Your task to perform on an android device: Open calendar and show me the second week of next month Image 0: 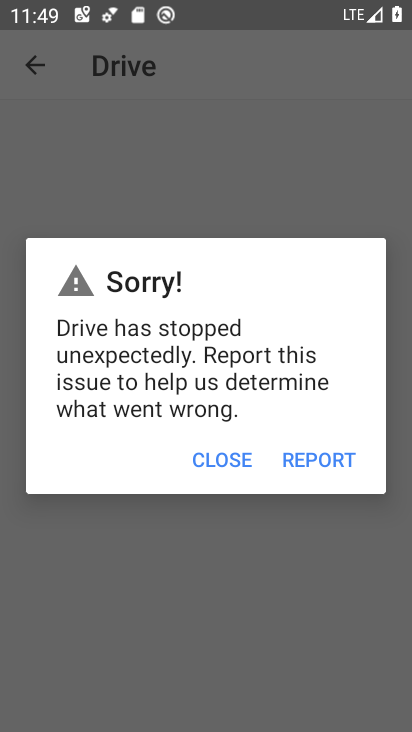
Step 0: press home button
Your task to perform on an android device: Open calendar and show me the second week of next month Image 1: 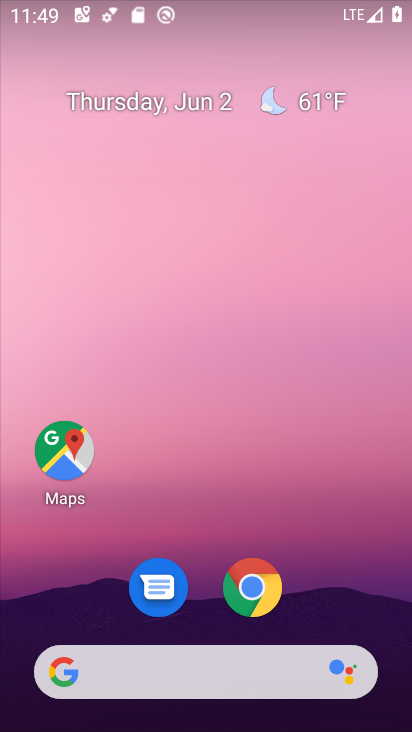
Step 1: drag from (204, 504) to (188, 7)
Your task to perform on an android device: Open calendar and show me the second week of next month Image 2: 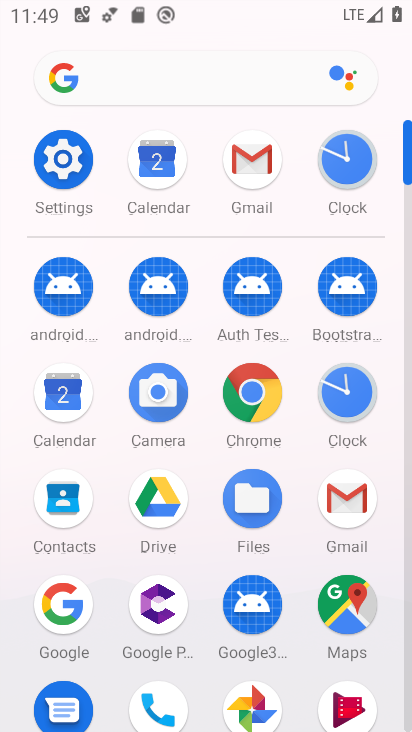
Step 2: click (149, 147)
Your task to perform on an android device: Open calendar and show me the second week of next month Image 3: 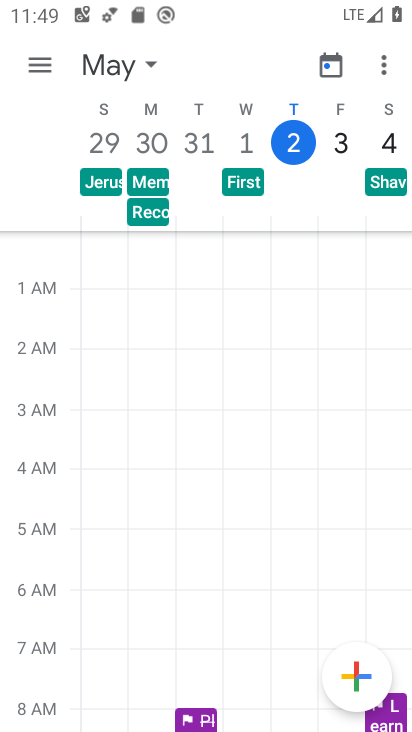
Step 3: click (363, 412)
Your task to perform on an android device: Open calendar and show me the second week of next month Image 4: 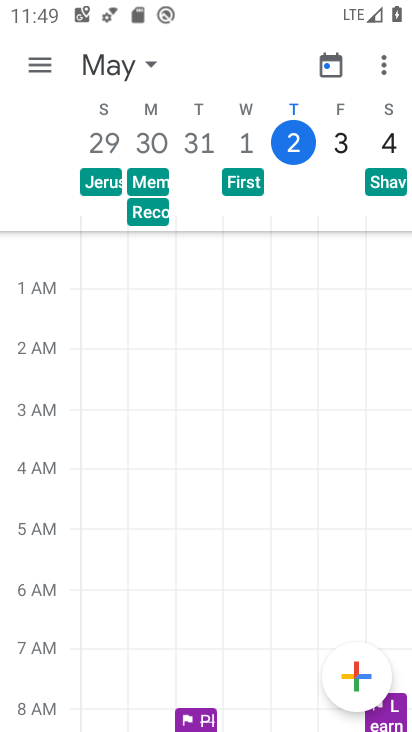
Step 4: click (36, 61)
Your task to perform on an android device: Open calendar and show me the second week of next month Image 5: 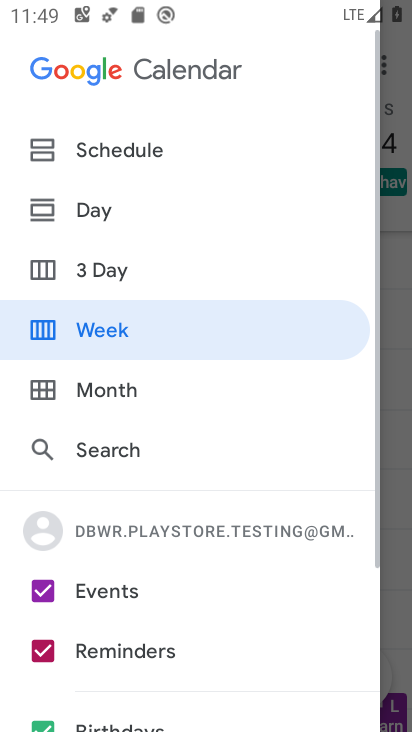
Step 5: click (205, 584)
Your task to perform on an android device: Open calendar and show me the second week of next month Image 6: 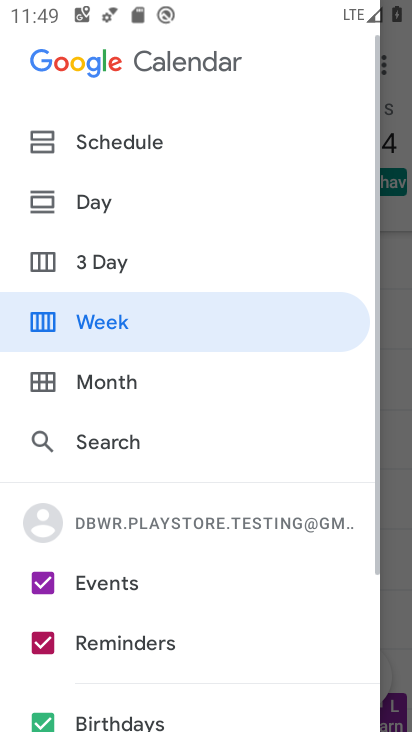
Step 6: click (102, 384)
Your task to perform on an android device: Open calendar and show me the second week of next month Image 7: 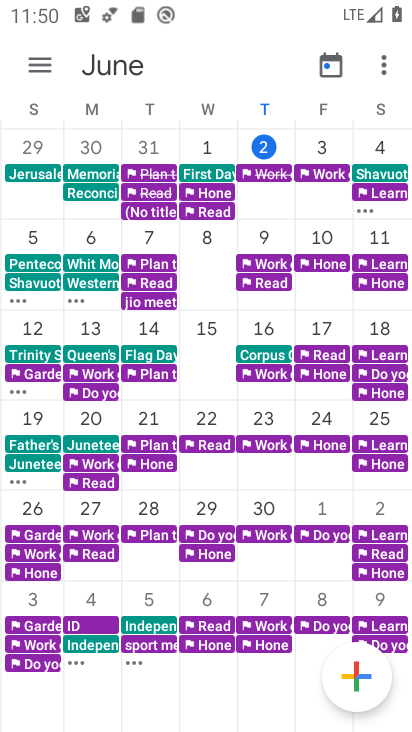
Step 7: drag from (358, 414) to (0, 390)
Your task to perform on an android device: Open calendar and show me the second week of next month Image 8: 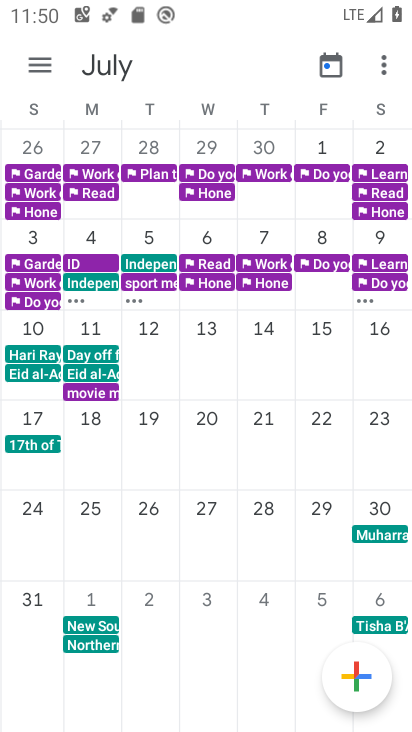
Step 8: click (35, 326)
Your task to perform on an android device: Open calendar and show me the second week of next month Image 9: 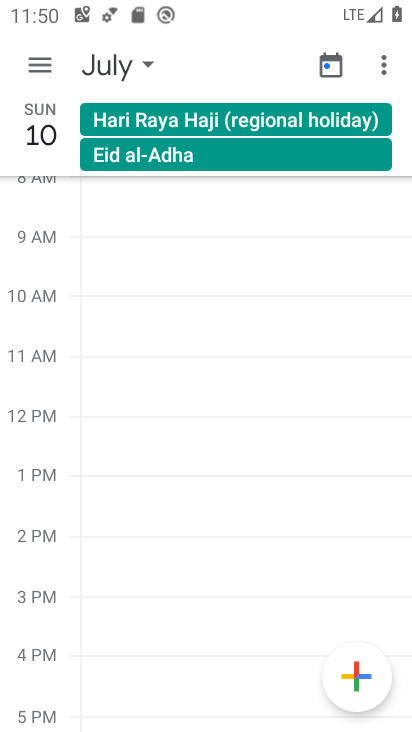
Step 9: click (44, 67)
Your task to perform on an android device: Open calendar and show me the second week of next month Image 10: 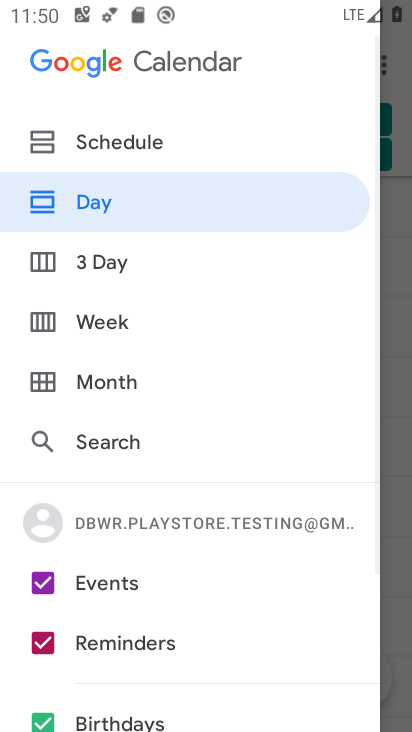
Step 10: click (102, 321)
Your task to perform on an android device: Open calendar and show me the second week of next month Image 11: 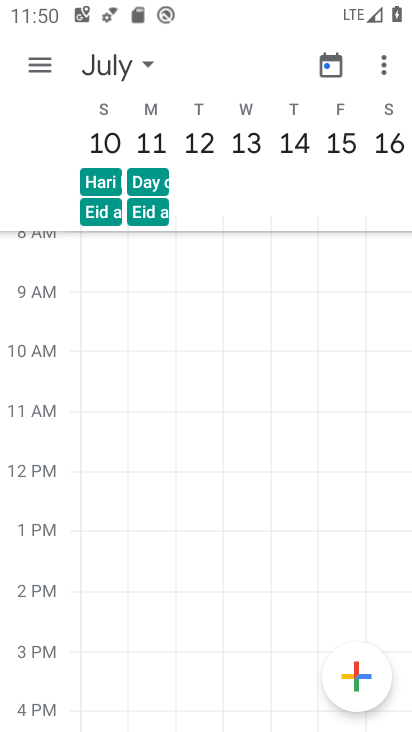
Step 11: task complete